Your task to perform on an android device: Open Maps and search for coffee Image 0: 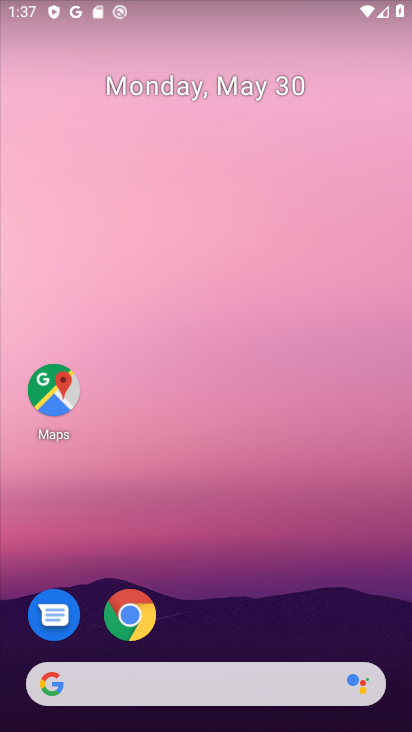
Step 0: click (48, 380)
Your task to perform on an android device: Open Maps and search for coffee Image 1: 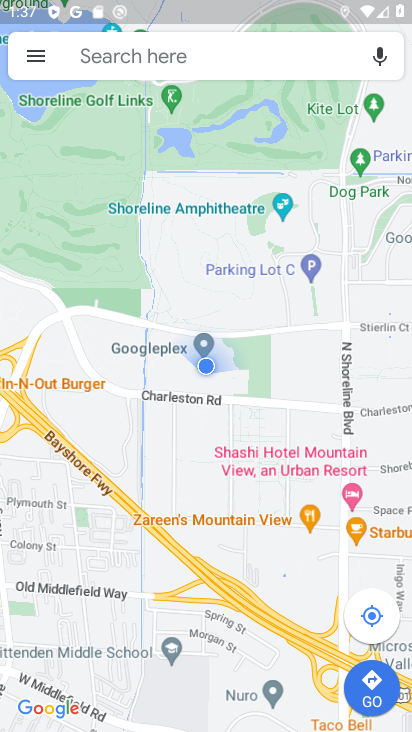
Step 1: click (116, 60)
Your task to perform on an android device: Open Maps and search for coffee Image 2: 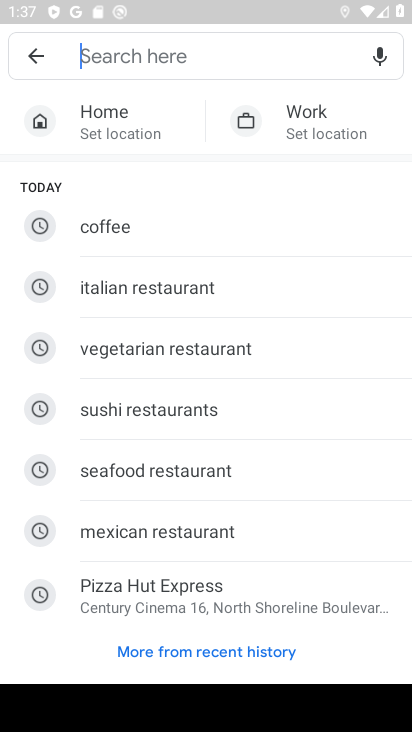
Step 2: click (112, 222)
Your task to perform on an android device: Open Maps and search for coffee Image 3: 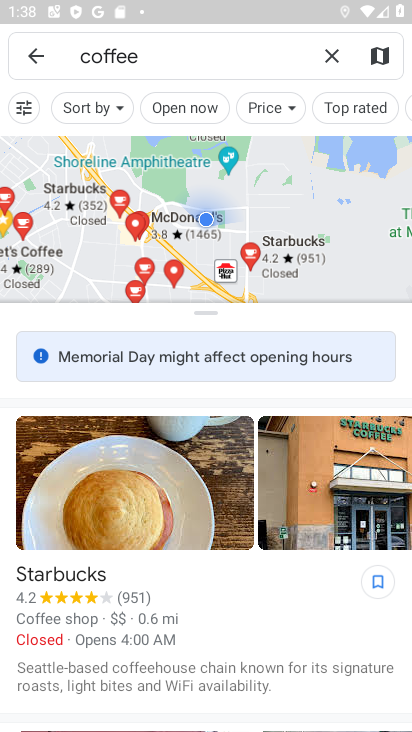
Step 3: task complete